Your task to perform on an android device: turn off notifications in google photos Image 0: 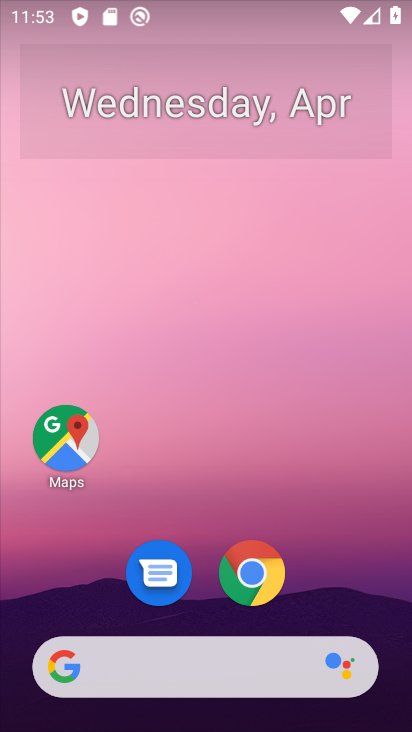
Step 0: drag from (195, 549) to (196, 71)
Your task to perform on an android device: turn off notifications in google photos Image 1: 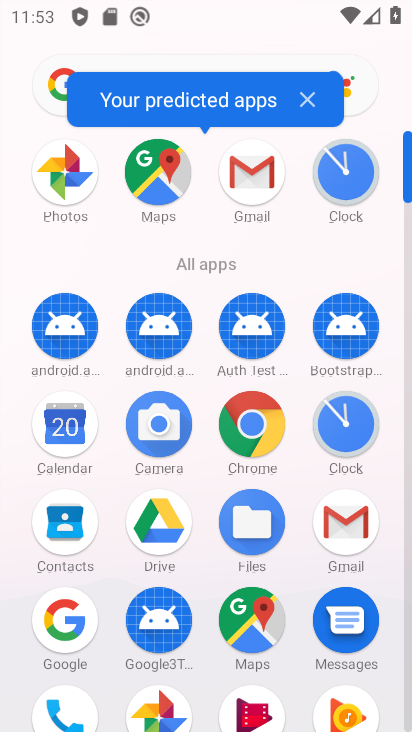
Step 1: click (66, 173)
Your task to perform on an android device: turn off notifications in google photos Image 2: 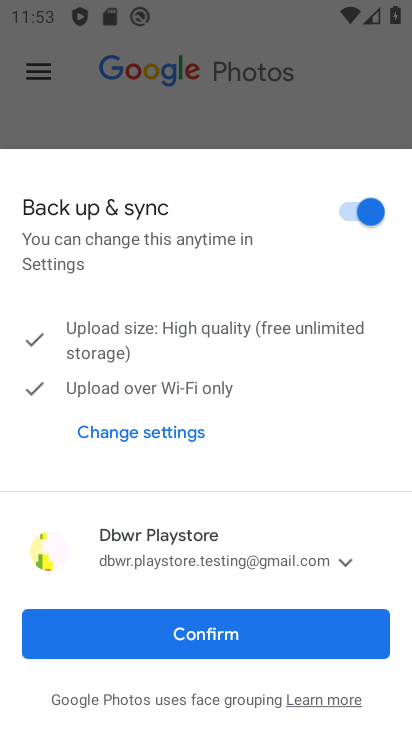
Step 2: click (205, 640)
Your task to perform on an android device: turn off notifications in google photos Image 3: 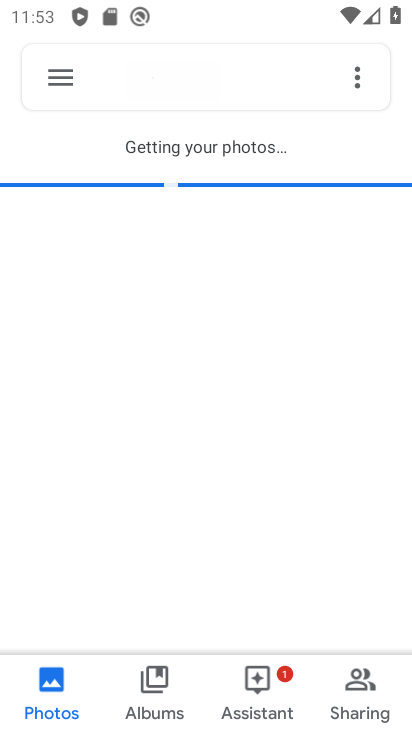
Step 3: click (62, 75)
Your task to perform on an android device: turn off notifications in google photos Image 4: 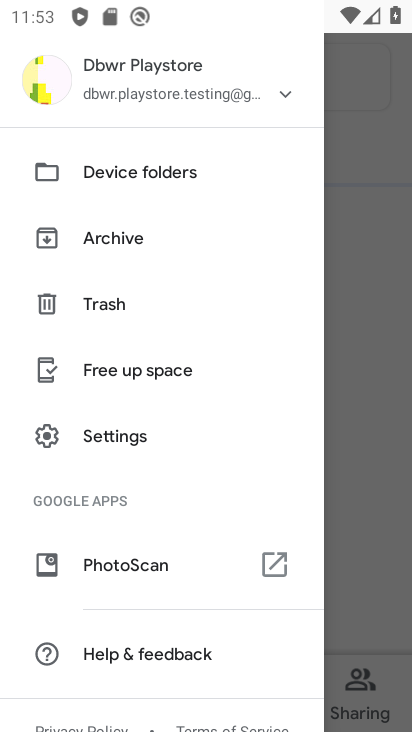
Step 4: click (135, 434)
Your task to perform on an android device: turn off notifications in google photos Image 5: 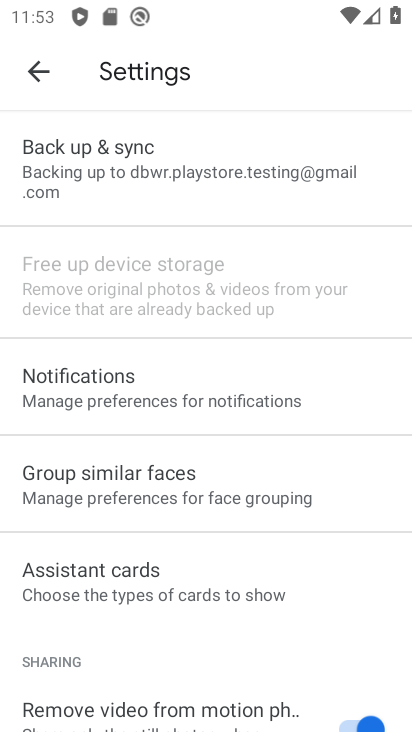
Step 5: click (146, 399)
Your task to perform on an android device: turn off notifications in google photos Image 6: 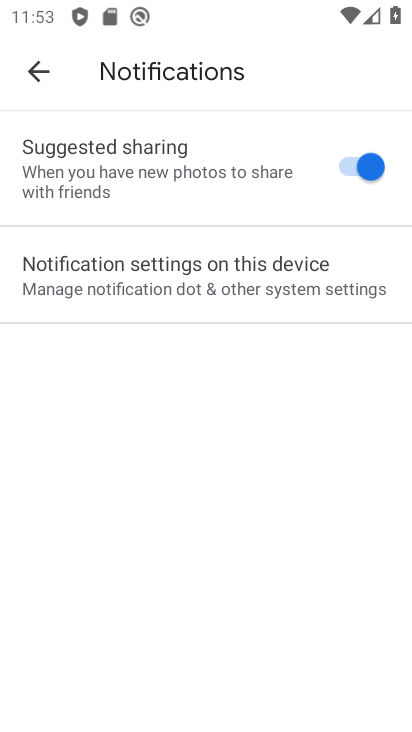
Step 6: click (177, 300)
Your task to perform on an android device: turn off notifications in google photos Image 7: 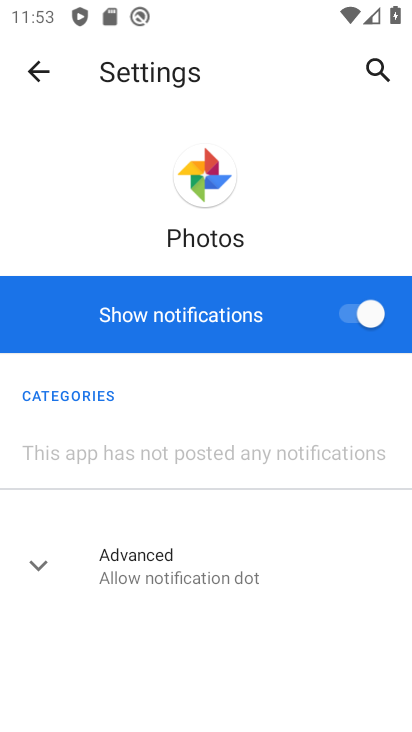
Step 7: click (366, 308)
Your task to perform on an android device: turn off notifications in google photos Image 8: 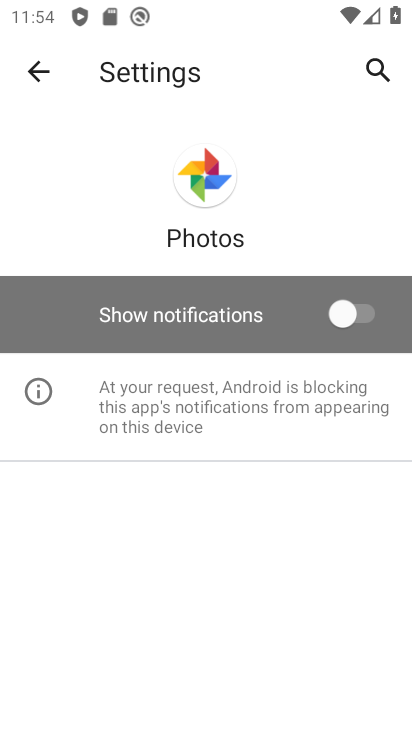
Step 8: task complete